Your task to perform on an android device: see creations saved in the google photos Image 0: 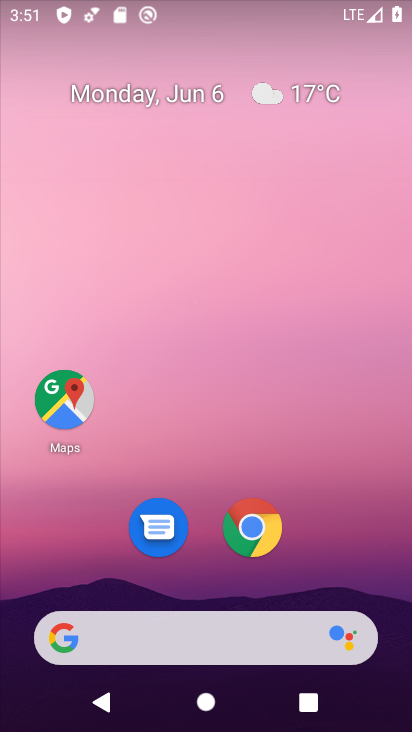
Step 0: drag from (324, 460) to (262, 8)
Your task to perform on an android device: see creations saved in the google photos Image 1: 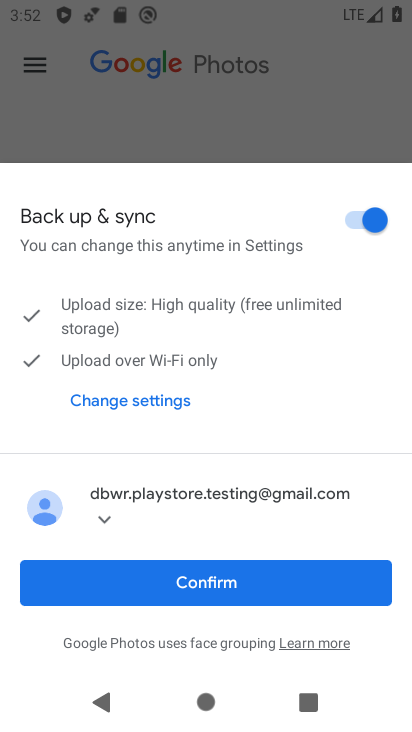
Step 1: press home button
Your task to perform on an android device: see creations saved in the google photos Image 2: 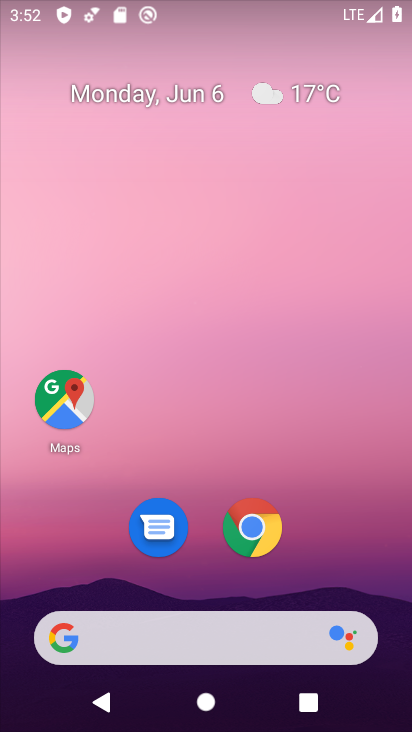
Step 2: drag from (375, 504) to (398, 266)
Your task to perform on an android device: see creations saved in the google photos Image 3: 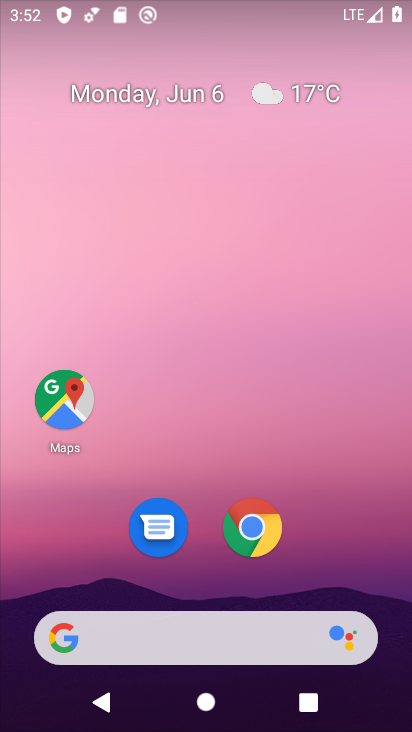
Step 3: drag from (342, 543) to (360, 285)
Your task to perform on an android device: see creations saved in the google photos Image 4: 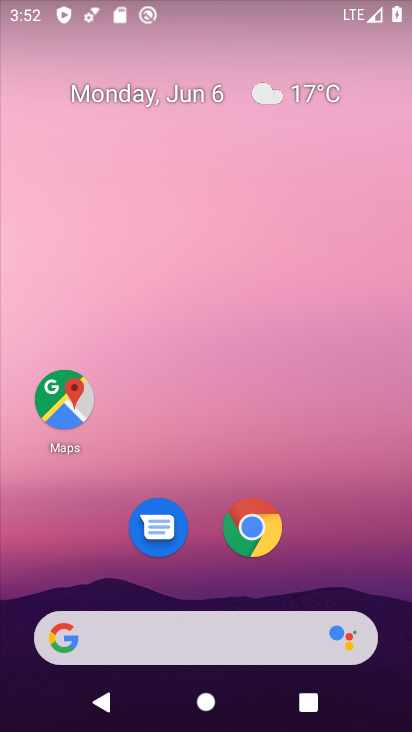
Step 4: drag from (360, 512) to (368, 249)
Your task to perform on an android device: see creations saved in the google photos Image 5: 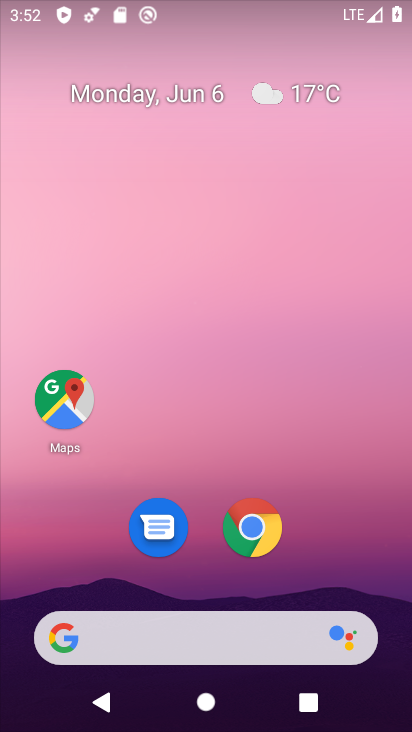
Step 5: drag from (359, 523) to (368, 306)
Your task to perform on an android device: see creations saved in the google photos Image 6: 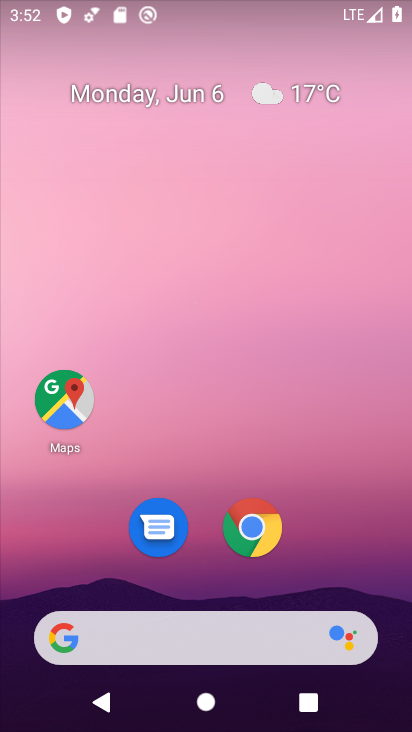
Step 6: drag from (360, 517) to (362, 197)
Your task to perform on an android device: see creations saved in the google photos Image 7: 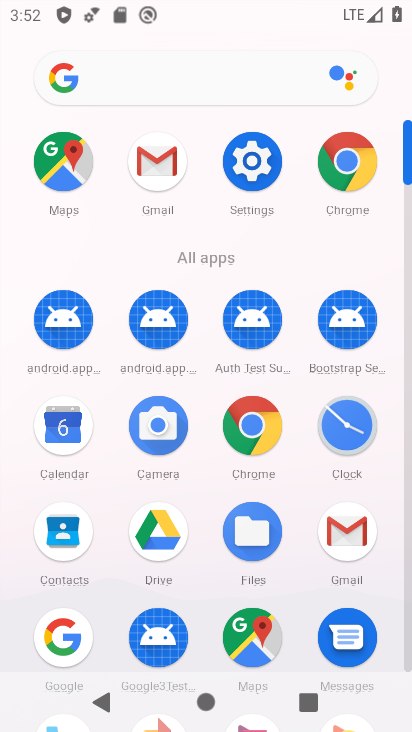
Step 7: click (401, 412)
Your task to perform on an android device: see creations saved in the google photos Image 8: 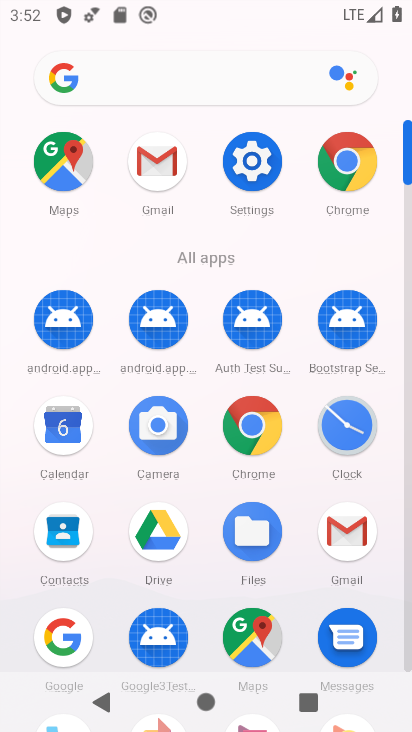
Step 8: click (408, 415)
Your task to perform on an android device: see creations saved in the google photos Image 9: 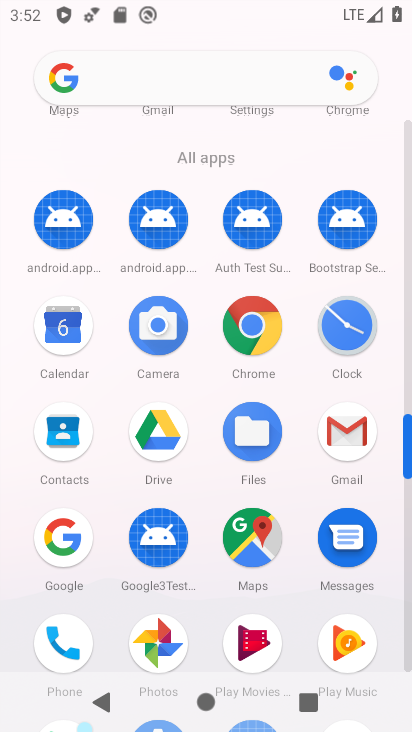
Step 9: click (143, 647)
Your task to perform on an android device: see creations saved in the google photos Image 10: 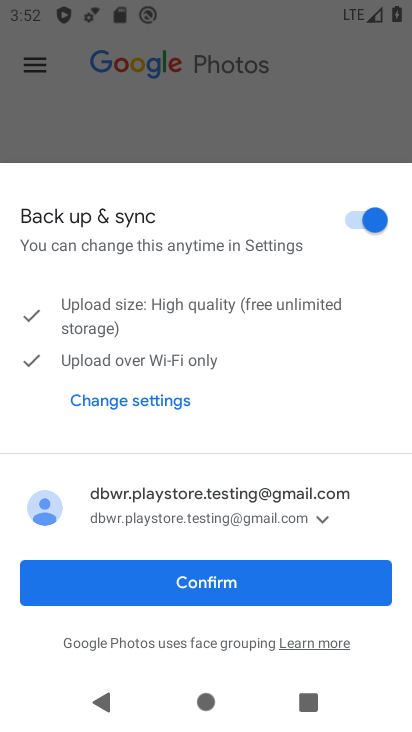
Step 10: click (267, 564)
Your task to perform on an android device: see creations saved in the google photos Image 11: 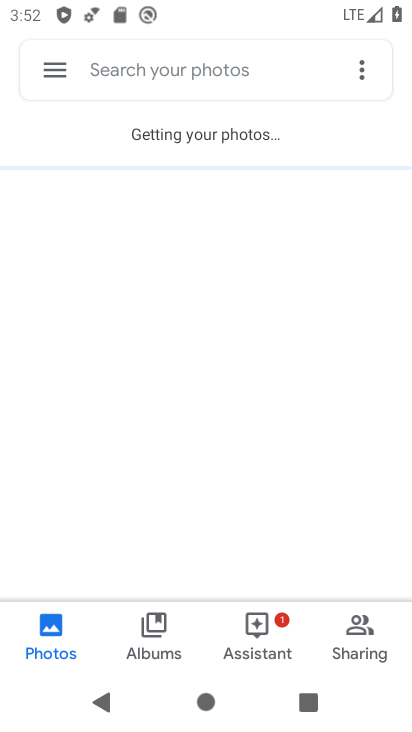
Step 11: click (50, 66)
Your task to perform on an android device: see creations saved in the google photos Image 12: 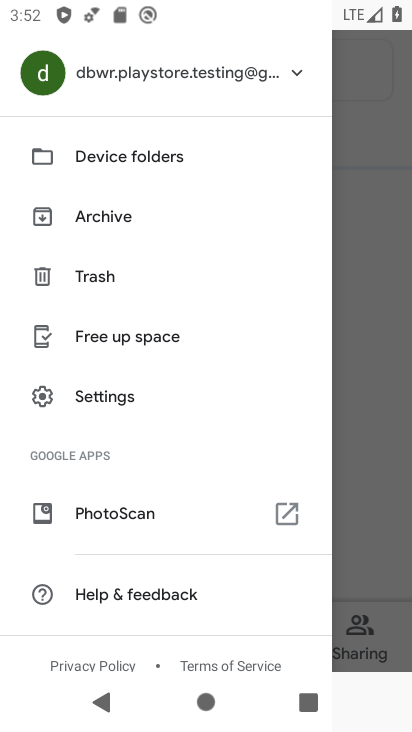
Step 12: click (58, 391)
Your task to perform on an android device: see creations saved in the google photos Image 13: 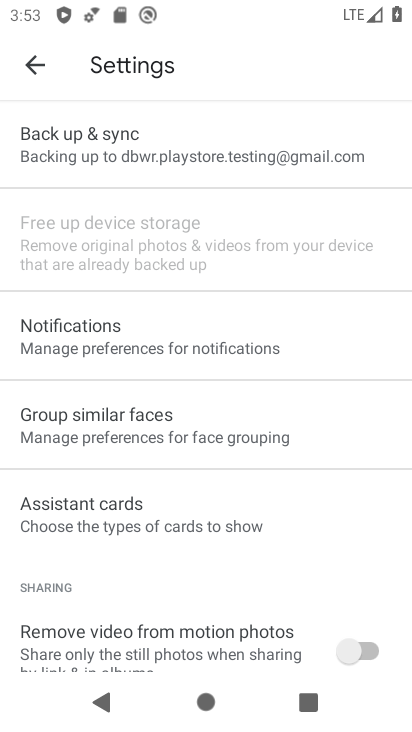
Step 13: click (28, 68)
Your task to perform on an android device: see creations saved in the google photos Image 14: 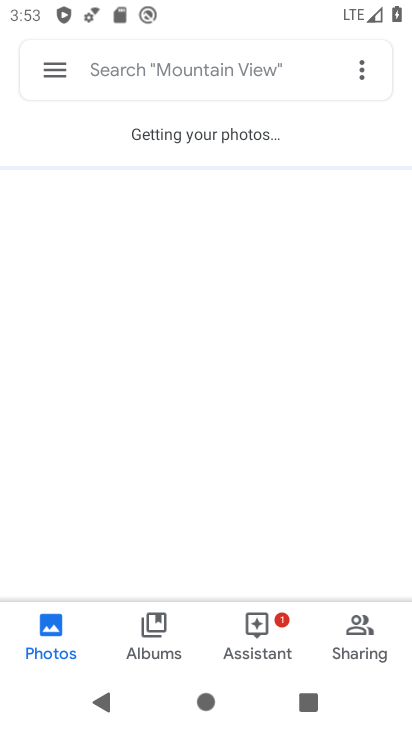
Step 14: click (373, 40)
Your task to perform on an android device: see creations saved in the google photos Image 15: 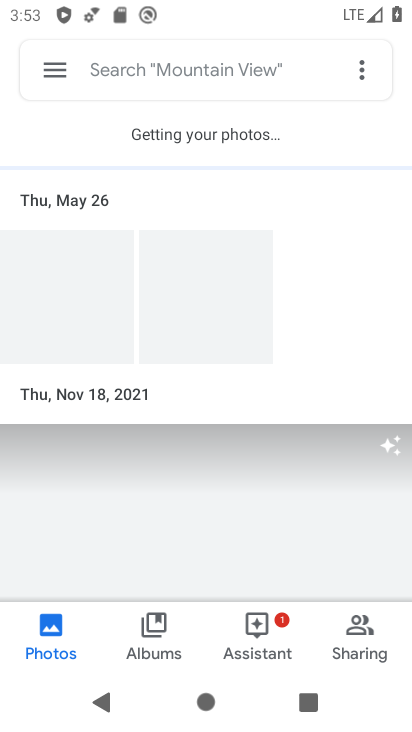
Step 15: click (361, 69)
Your task to perform on an android device: see creations saved in the google photos Image 16: 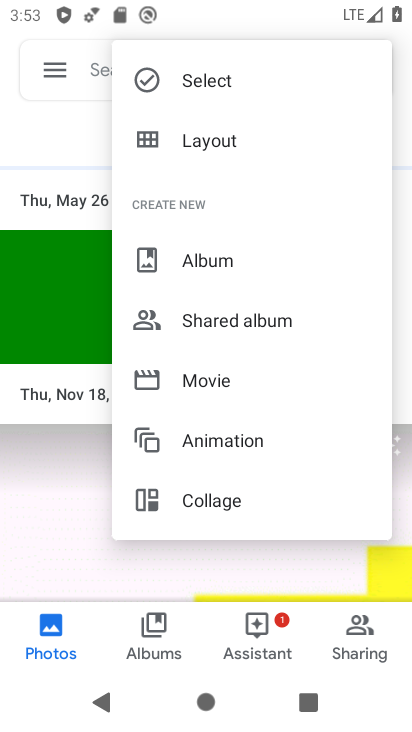
Step 16: click (72, 233)
Your task to perform on an android device: see creations saved in the google photos Image 17: 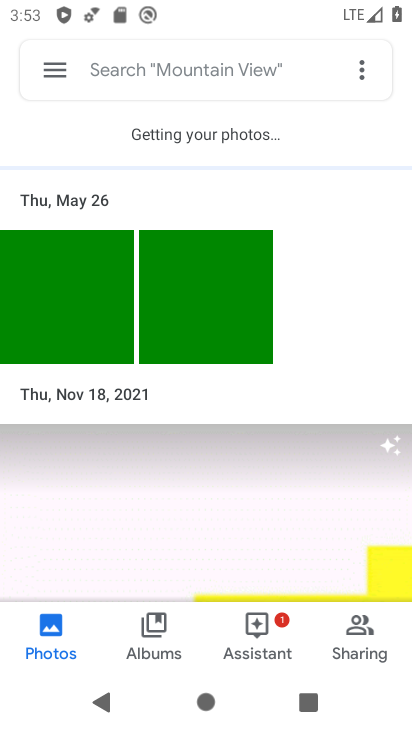
Step 17: click (306, 550)
Your task to perform on an android device: see creations saved in the google photos Image 18: 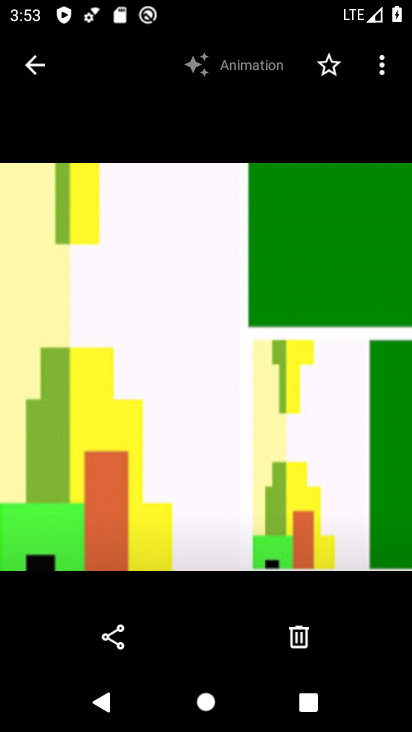
Step 18: click (387, 67)
Your task to perform on an android device: see creations saved in the google photos Image 19: 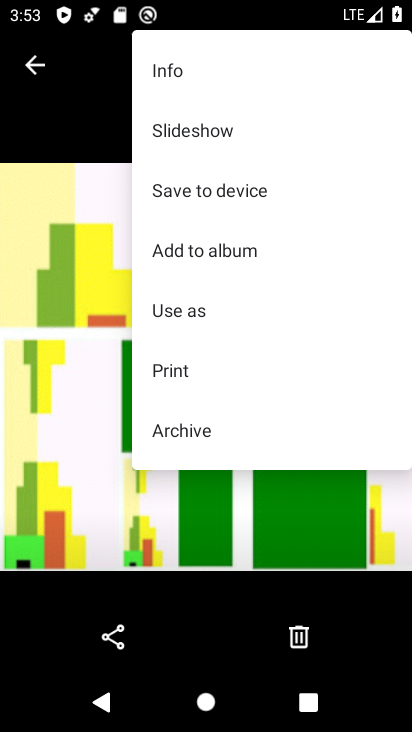
Step 19: task complete